Your task to perform on an android device: turn on data saver in the chrome app Image 0: 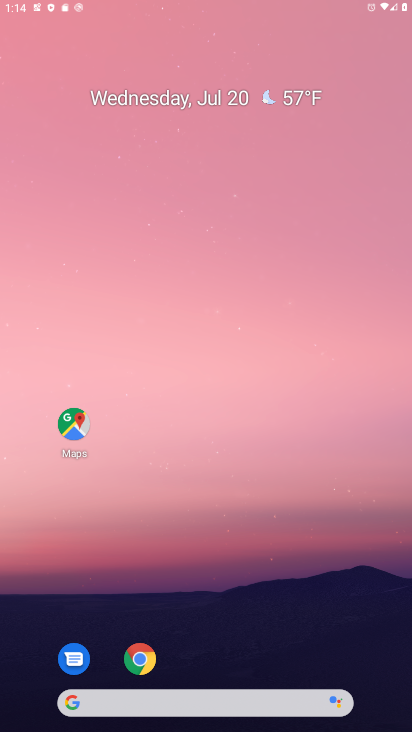
Step 0: press home button
Your task to perform on an android device: turn on data saver in the chrome app Image 1: 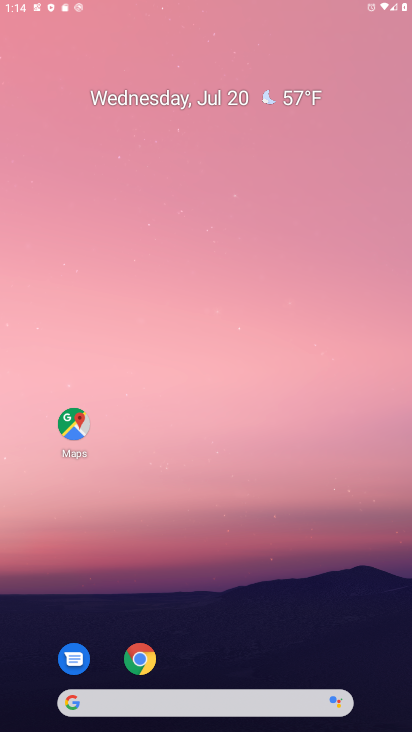
Step 1: drag from (216, 668) to (251, 44)
Your task to perform on an android device: turn on data saver in the chrome app Image 2: 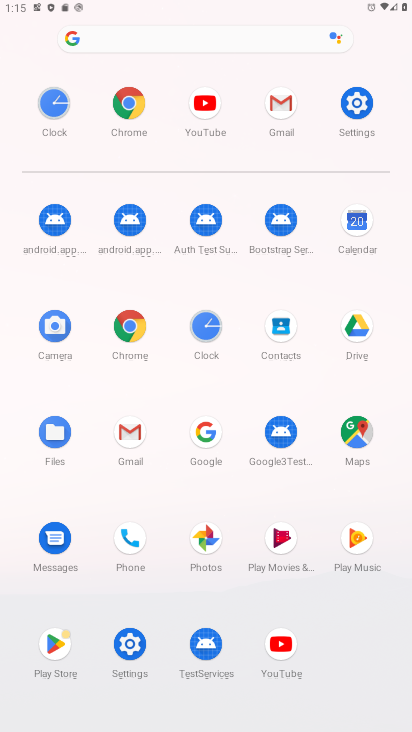
Step 2: click (136, 91)
Your task to perform on an android device: turn on data saver in the chrome app Image 3: 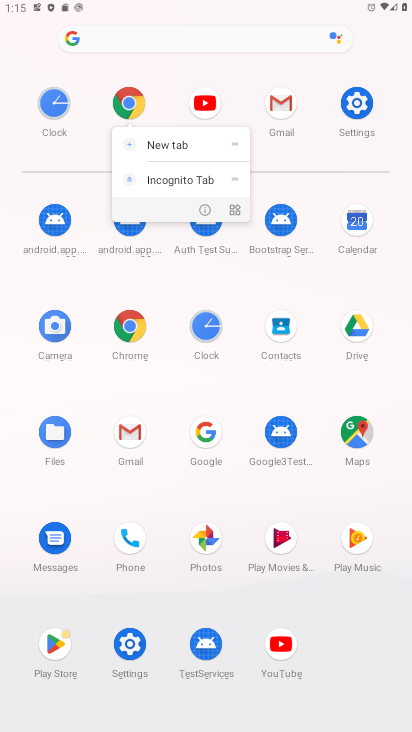
Step 3: click (126, 105)
Your task to perform on an android device: turn on data saver in the chrome app Image 4: 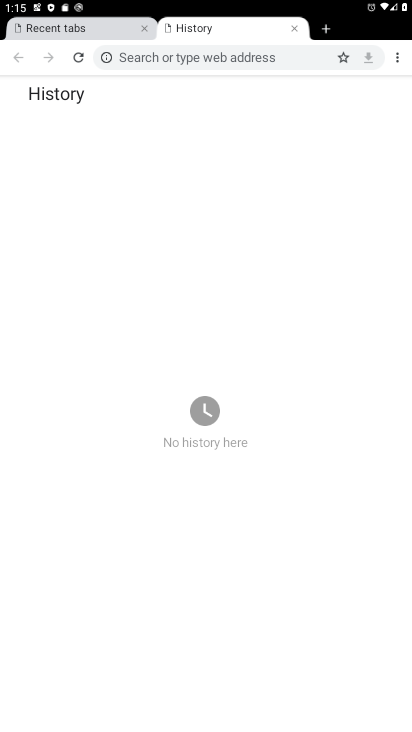
Step 4: click (392, 54)
Your task to perform on an android device: turn on data saver in the chrome app Image 5: 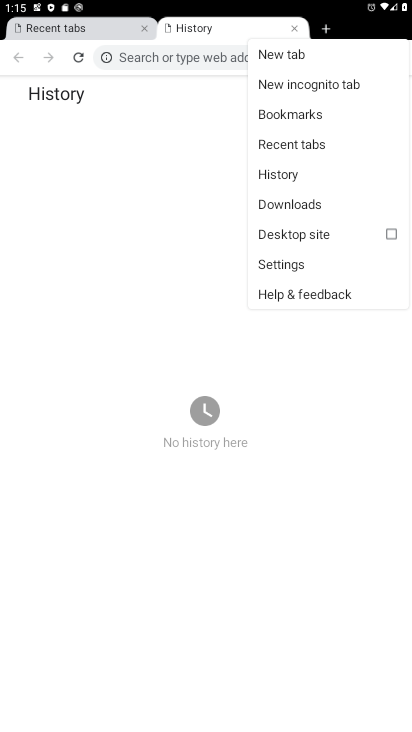
Step 5: click (302, 266)
Your task to perform on an android device: turn on data saver in the chrome app Image 6: 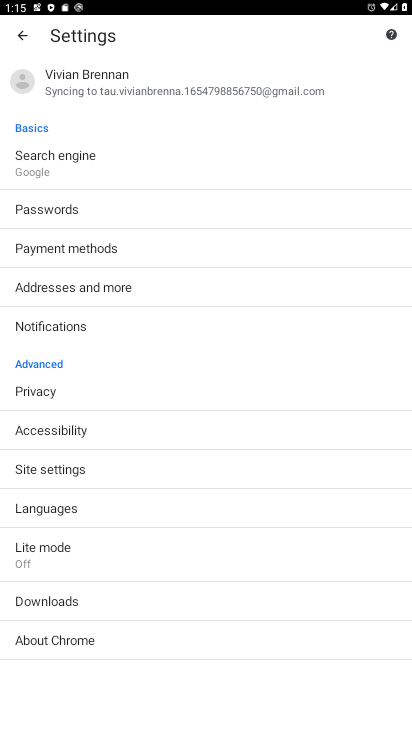
Step 6: click (59, 549)
Your task to perform on an android device: turn on data saver in the chrome app Image 7: 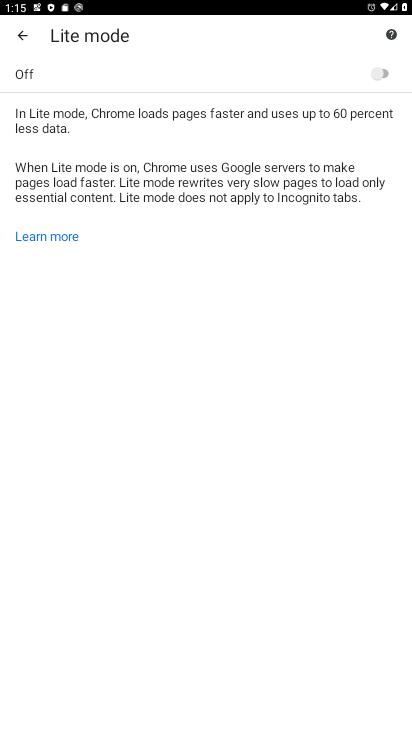
Step 7: click (379, 73)
Your task to perform on an android device: turn on data saver in the chrome app Image 8: 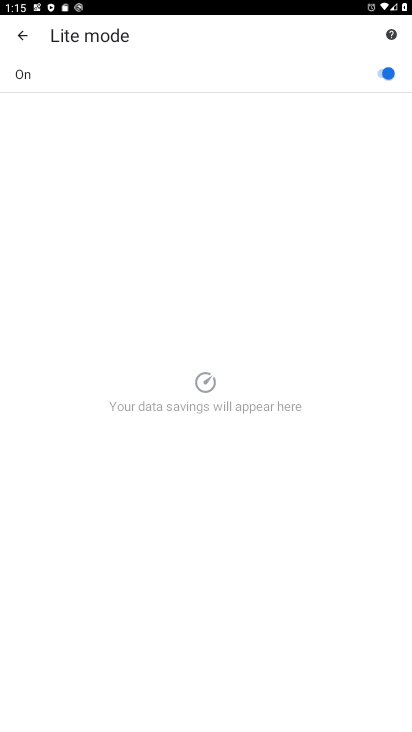
Step 8: task complete